Your task to perform on an android device: turn off location history Image 0: 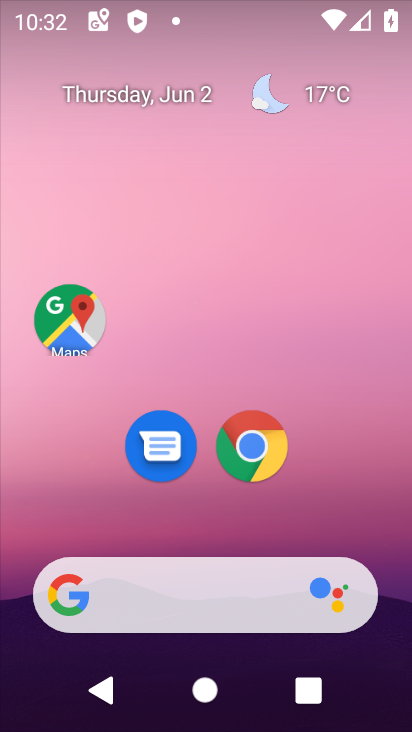
Step 0: click (68, 309)
Your task to perform on an android device: turn off location history Image 1: 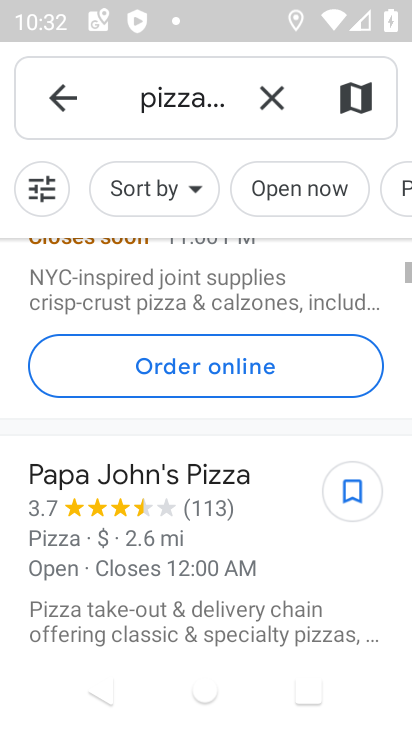
Step 1: click (73, 97)
Your task to perform on an android device: turn off location history Image 2: 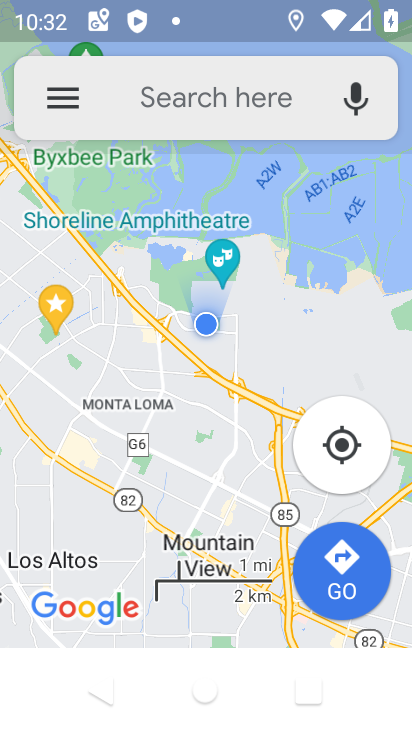
Step 2: click (75, 99)
Your task to perform on an android device: turn off location history Image 3: 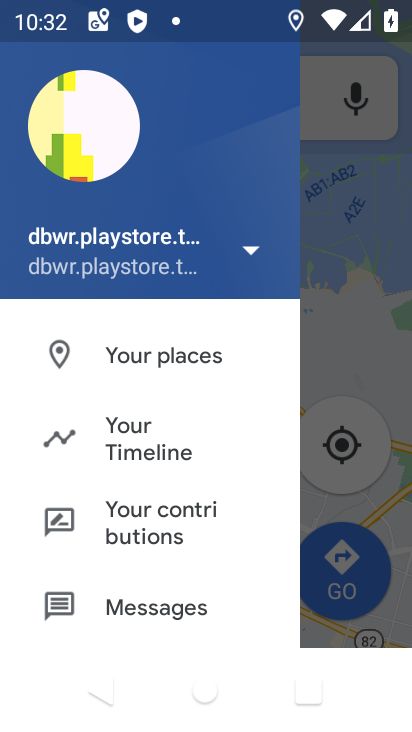
Step 3: drag from (169, 558) to (173, 124)
Your task to perform on an android device: turn off location history Image 4: 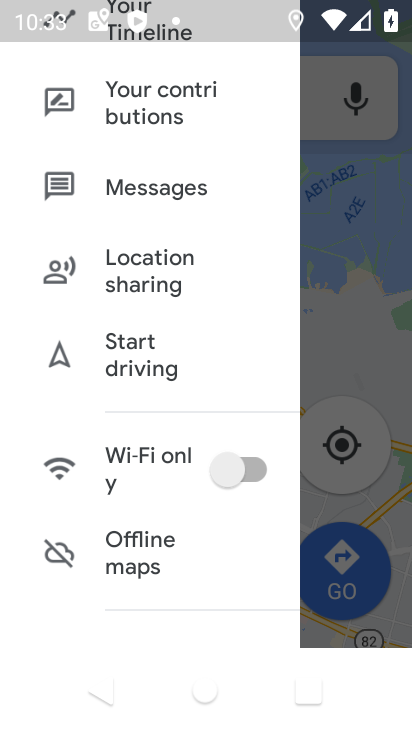
Step 4: drag from (133, 544) to (211, 187)
Your task to perform on an android device: turn off location history Image 5: 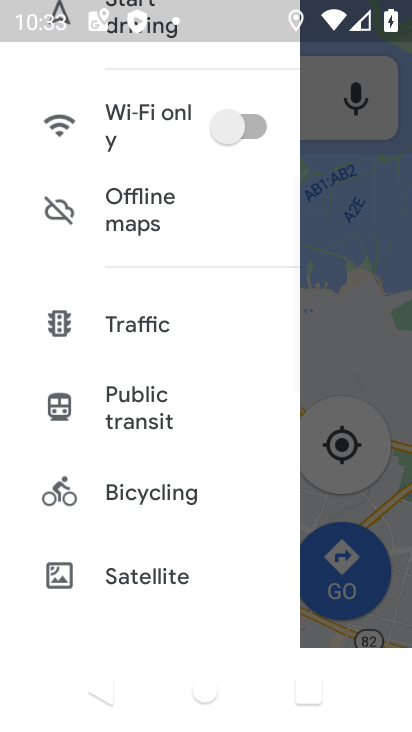
Step 5: drag from (163, 544) to (202, 306)
Your task to perform on an android device: turn off location history Image 6: 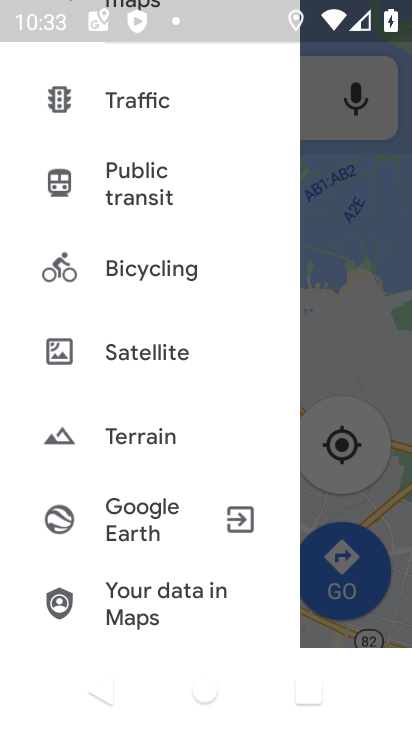
Step 6: drag from (154, 507) to (220, 237)
Your task to perform on an android device: turn off location history Image 7: 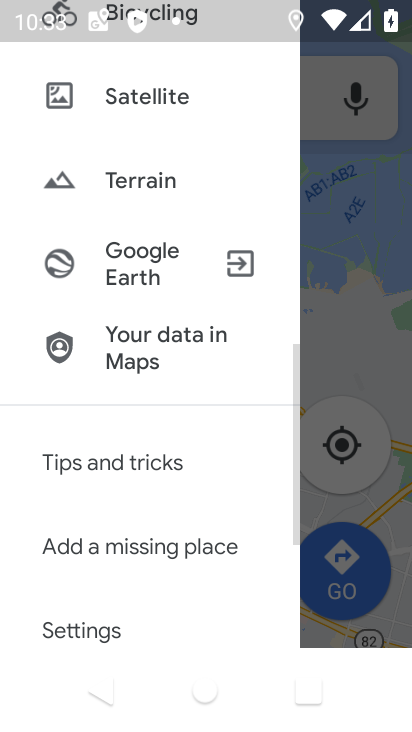
Step 7: drag from (116, 575) to (193, 351)
Your task to perform on an android device: turn off location history Image 8: 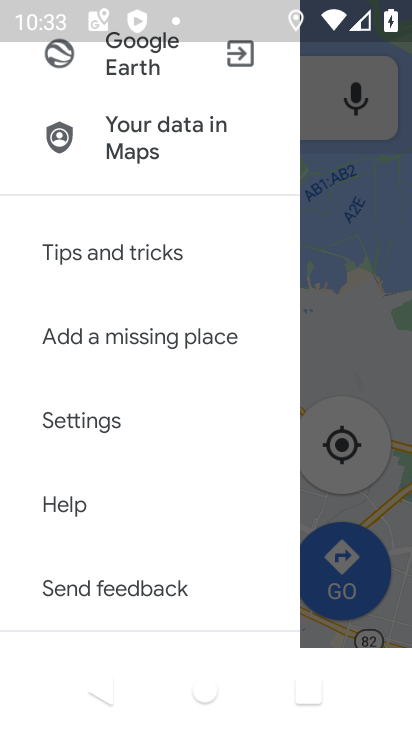
Step 8: click (108, 417)
Your task to perform on an android device: turn off location history Image 9: 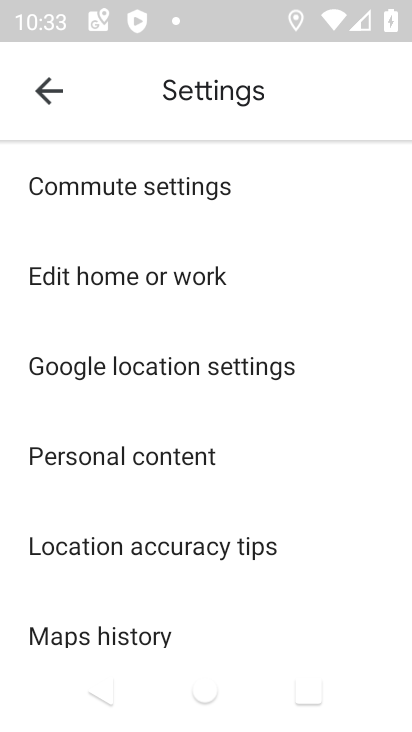
Step 9: drag from (174, 598) to (182, 241)
Your task to perform on an android device: turn off location history Image 10: 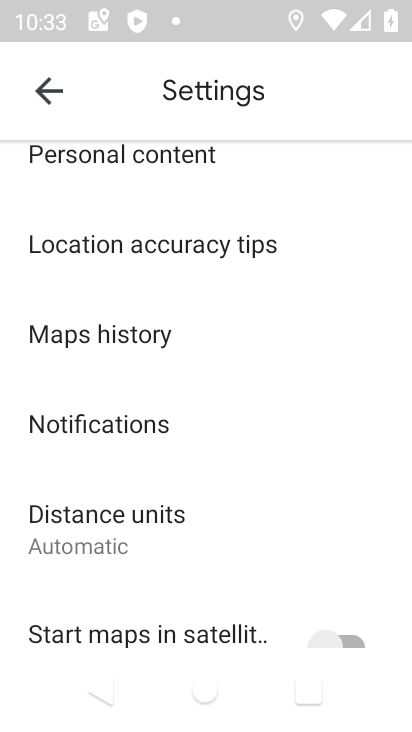
Step 10: click (122, 337)
Your task to perform on an android device: turn off location history Image 11: 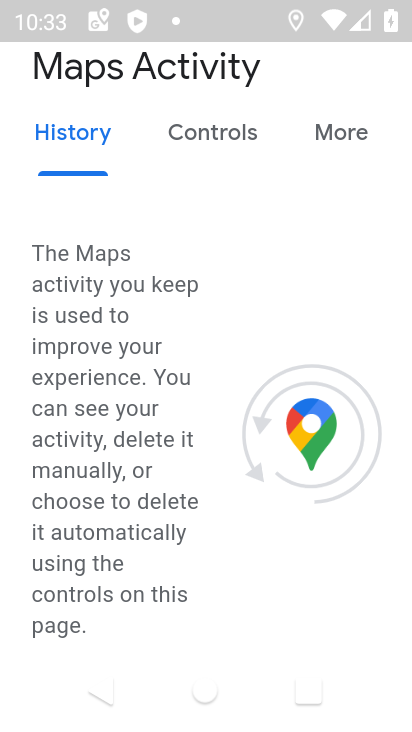
Step 11: drag from (204, 466) to (223, 152)
Your task to perform on an android device: turn off location history Image 12: 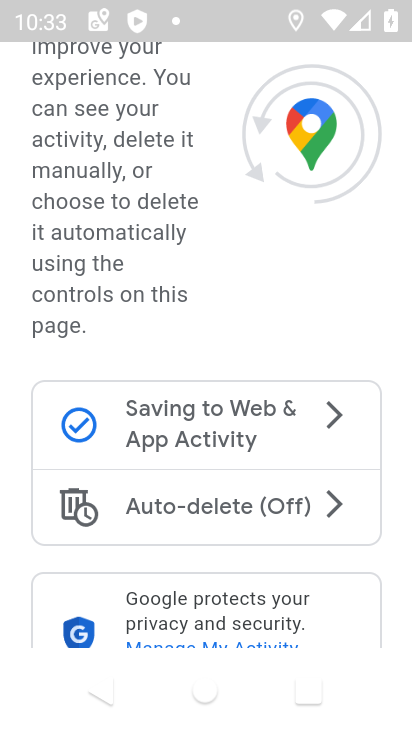
Step 12: drag from (212, 450) to (241, 109)
Your task to perform on an android device: turn off location history Image 13: 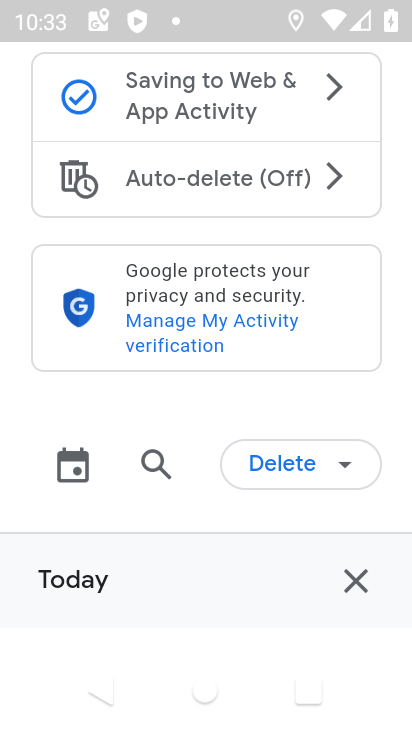
Step 13: click (280, 471)
Your task to perform on an android device: turn off location history Image 14: 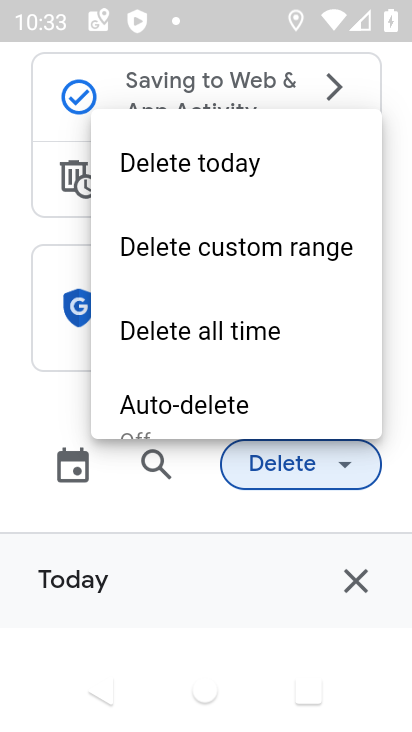
Step 14: click (254, 340)
Your task to perform on an android device: turn off location history Image 15: 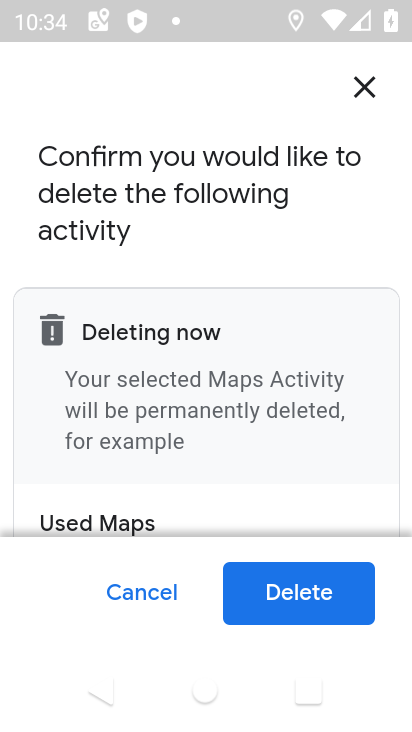
Step 15: click (305, 592)
Your task to perform on an android device: turn off location history Image 16: 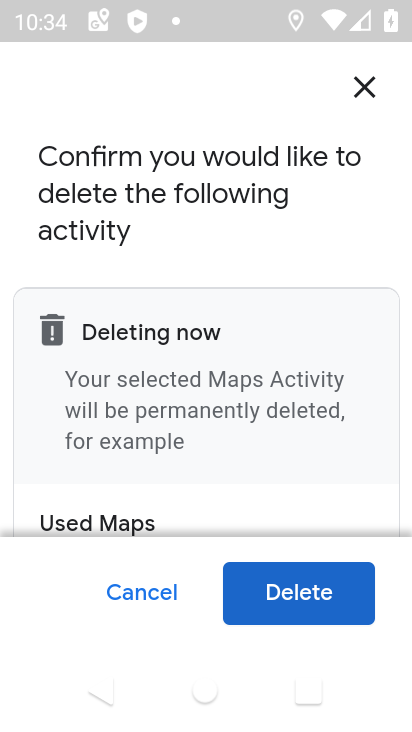
Step 16: click (306, 589)
Your task to perform on an android device: turn off location history Image 17: 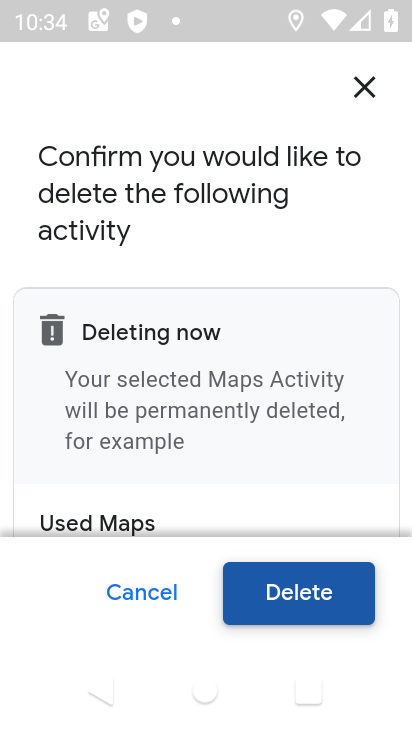
Step 17: click (306, 586)
Your task to perform on an android device: turn off location history Image 18: 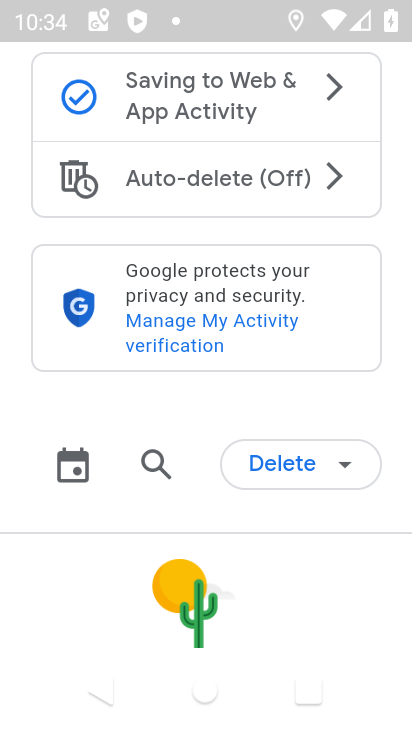
Step 18: task complete